Your task to perform on an android device: change the clock display to digital Image 0: 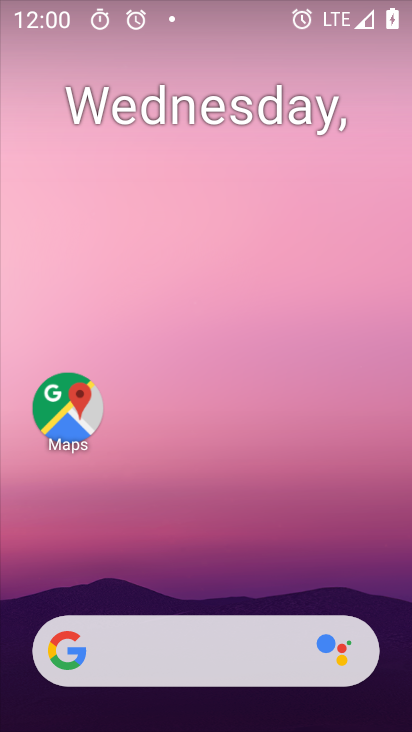
Step 0: drag from (189, 640) to (257, 124)
Your task to perform on an android device: change the clock display to digital Image 1: 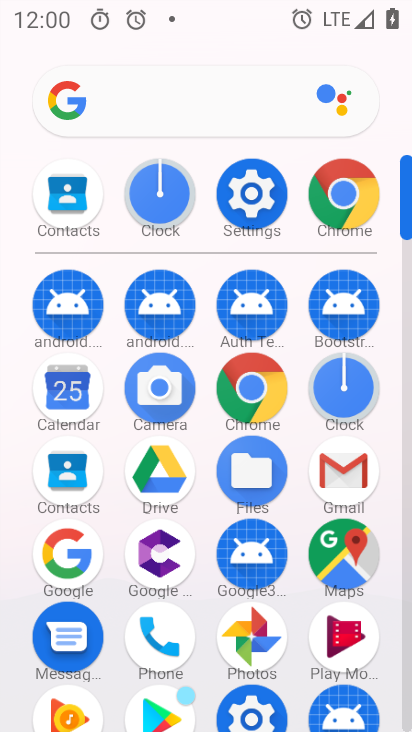
Step 1: click (349, 377)
Your task to perform on an android device: change the clock display to digital Image 2: 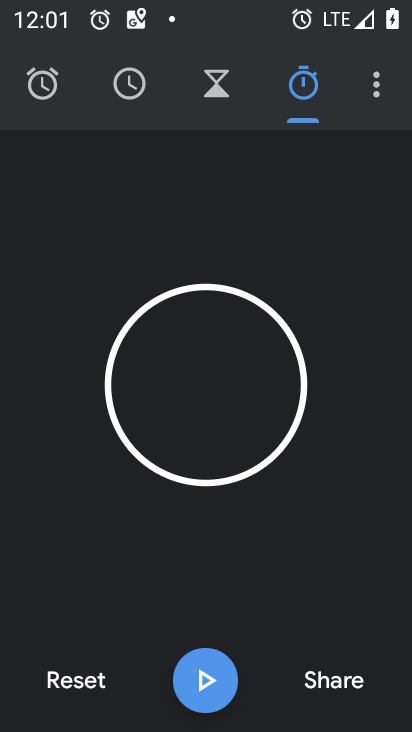
Step 2: click (385, 71)
Your task to perform on an android device: change the clock display to digital Image 3: 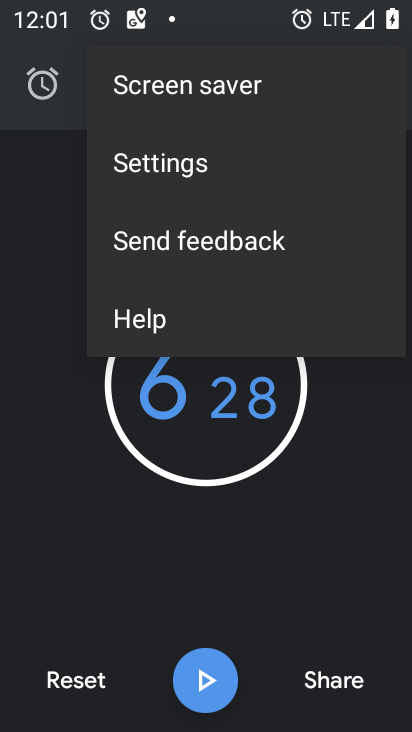
Step 3: click (163, 179)
Your task to perform on an android device: change the clock display to digital Image 4: 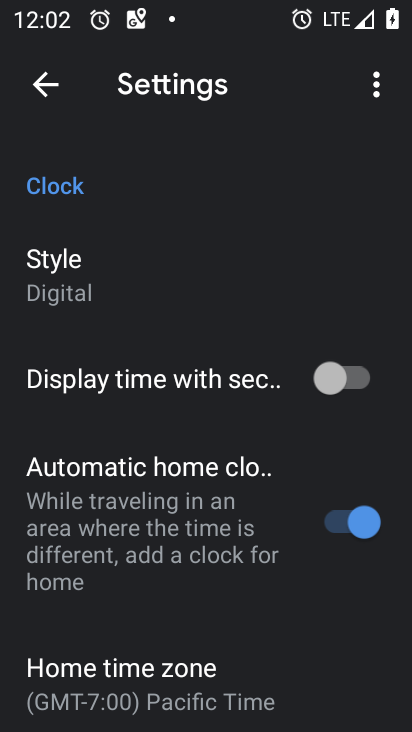
Step 4: task complete